Your task to perform on an android device: toggle translation in the chrome app Image 0: 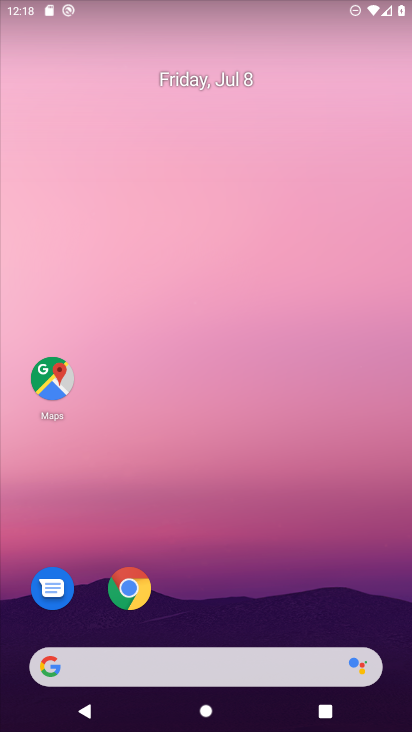
Step 0: click (128, 587)
Your task to perform on an android device: toggle translation in the chrome app Image 1: 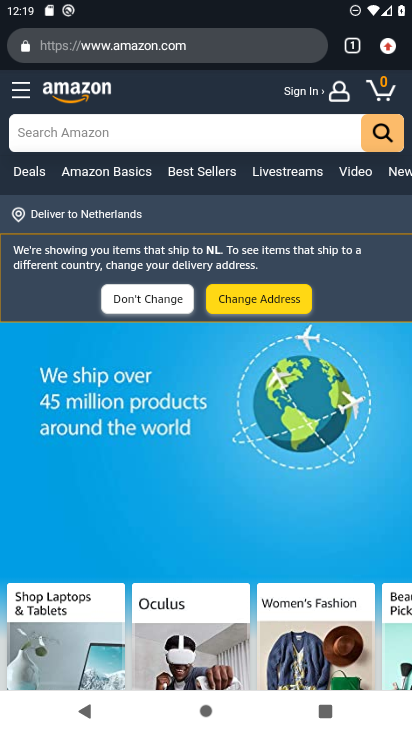
Step 1: click (389, 44)
Your task to perform on an android device: toggle translation in the chrome app Image 2: 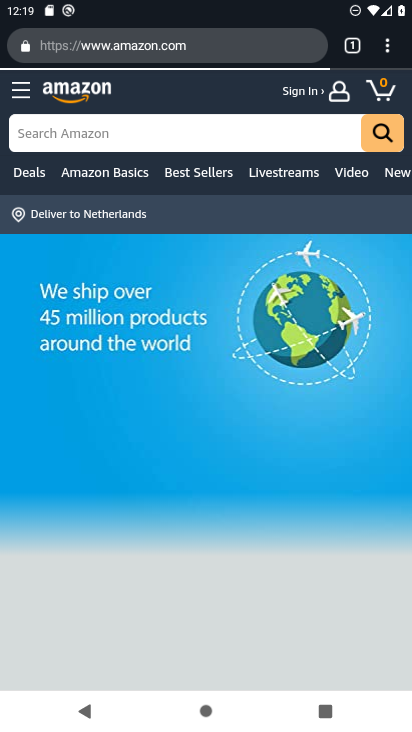
Step 2: click (385, 42)
Your task to perform on an android device: toggle translation in the chrome app Image 3: 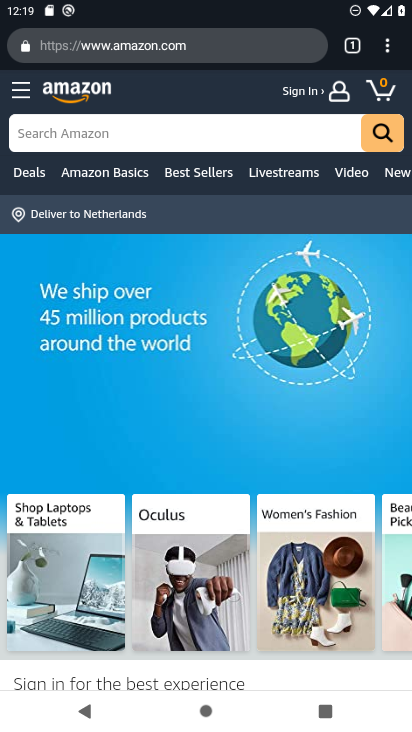
Step 3: drag from (385, 42) to (230, 585)
Your task to perform on an android device: toggle translation in the chrome app Image 4: 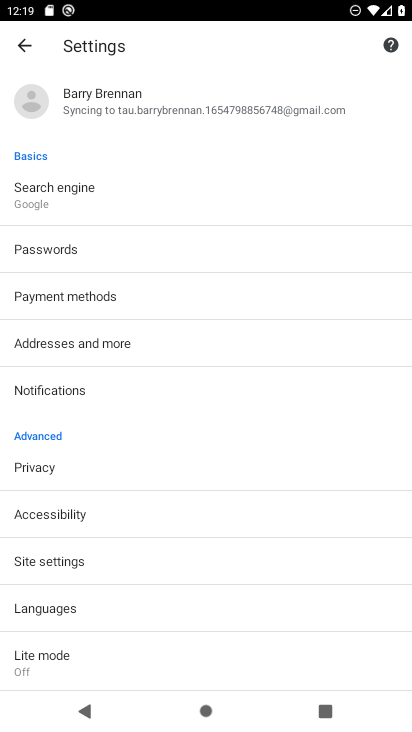
Step 4: click (42, 608)
Your task to perform on an android device: toggle translation in the chrome app Image 5: 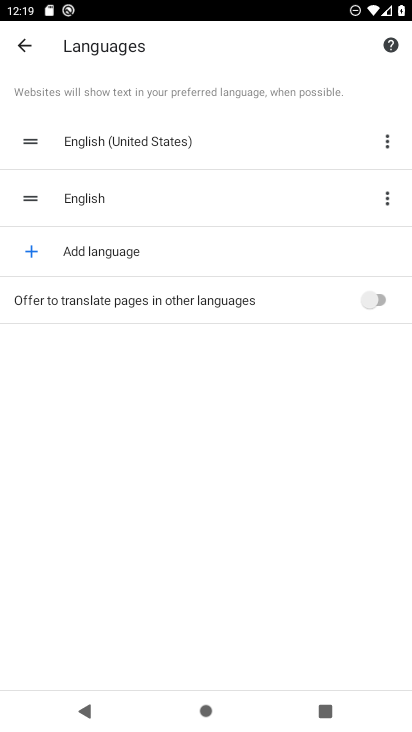
Step 5: click (371, 299)
Your task to perform on an android device: toggle translation in the chrome app Image 6: 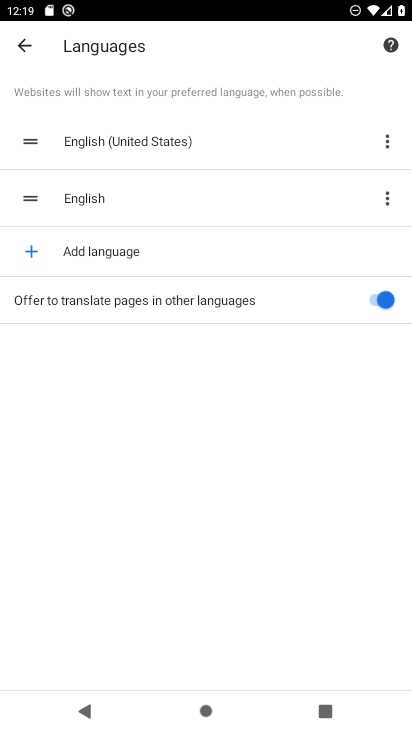
Step 6: task complete